Your task to perform on an android device: change text size in settings app Image 0: 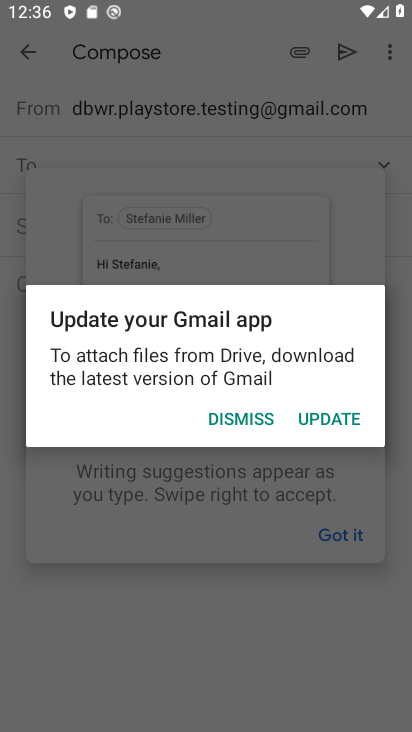
Step 0: press back button
Your task to perform on an android device: change text size in settings app Image 1: 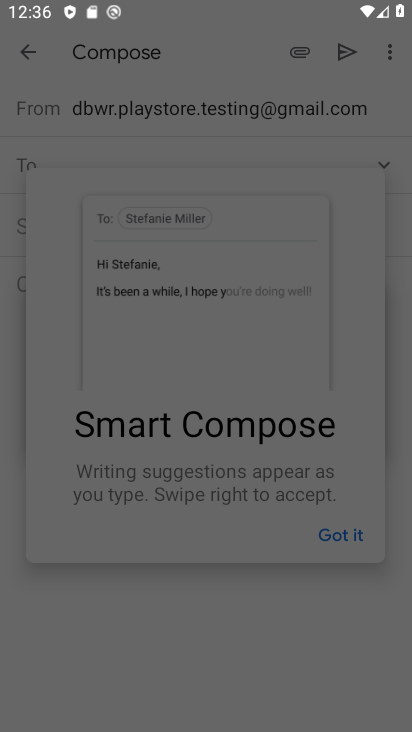
Step 1: press home button
Your task to perform on an android device: change text size in settings app Image 2: 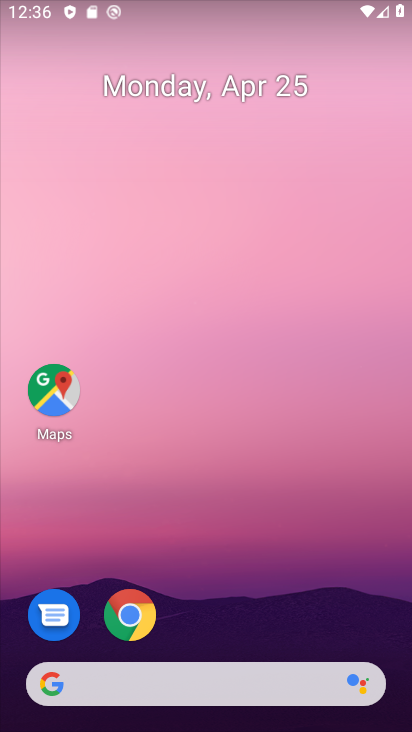
Step 2: drag from (200, 584) to (341, 122)
Your task to perform on an android device: change text size in settings app Image 3: 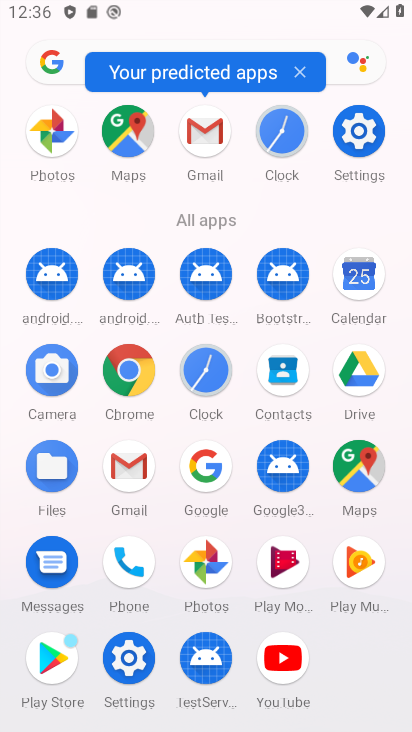
Step 3: click (132, 670)
Your task to perform on an android device: change text size in settings app Image 4: 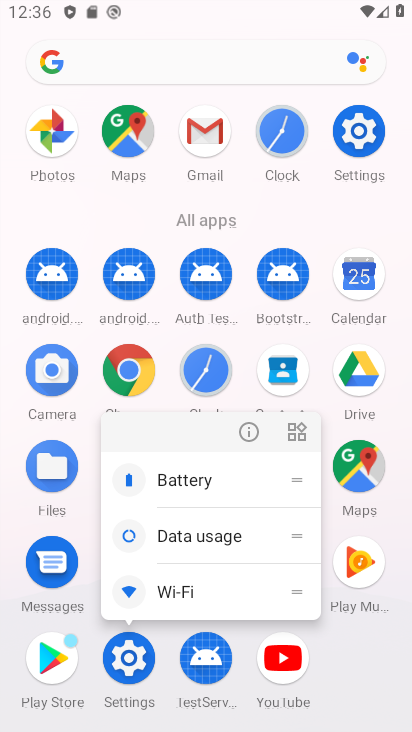
Step 4: click (133, 659)
Your task to perform on an android device: change text size in settings app Image 5: 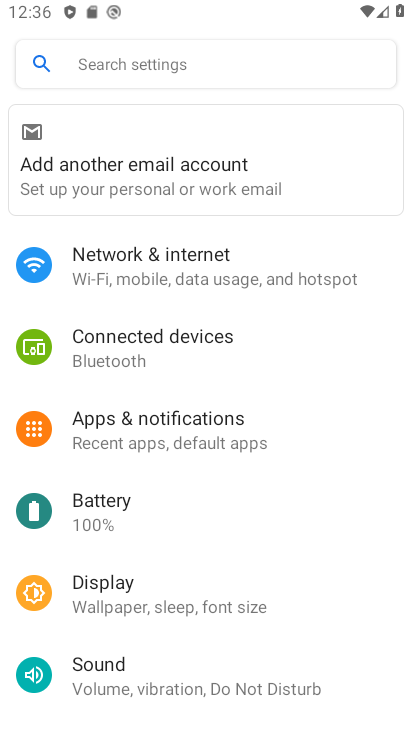
Step 5: click (172, 608)
Your task to perform on an android device: change text size in settings app Image 6: 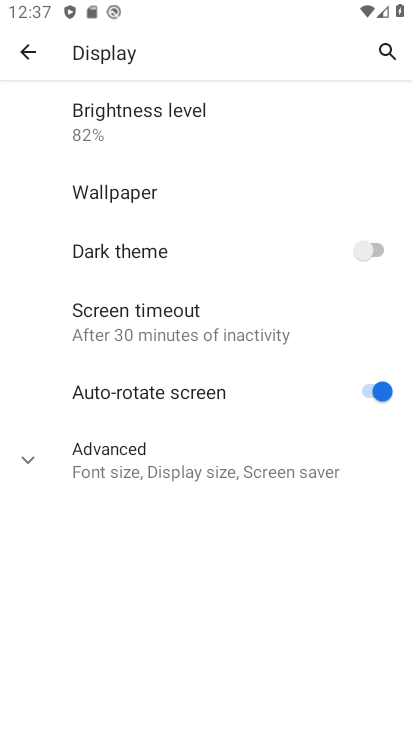
Step 6: click (156, 455)
Your task to perform on an android device: change text size in settings app Image 7: 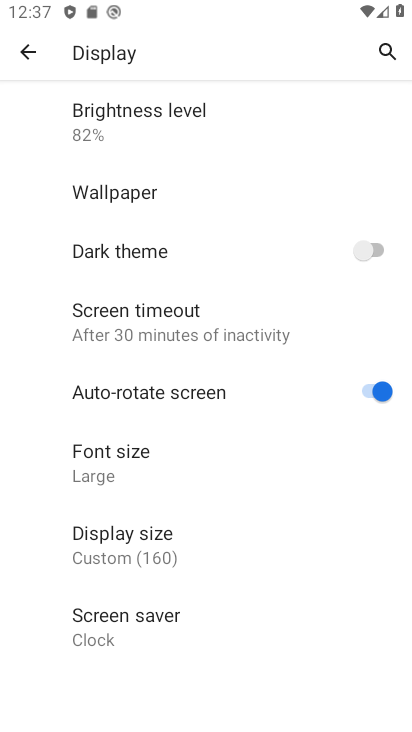
Step 7: click (158, 471)
Your task to perform on an android device: change text size in settings app Image 8: 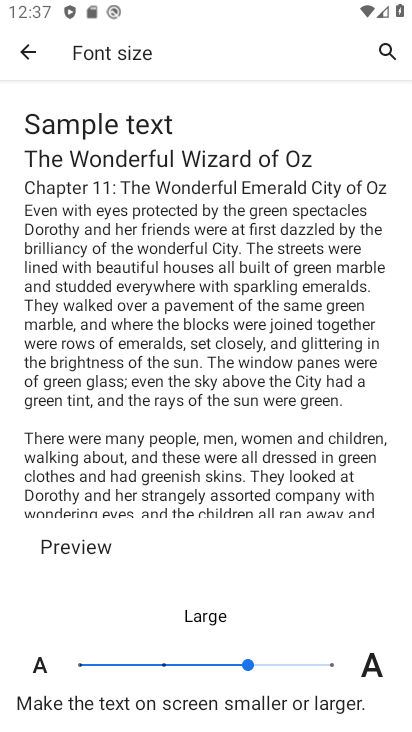
Step 8: click (164, 664)
Your task to perform on an android device: change text size in settings app Image 9: 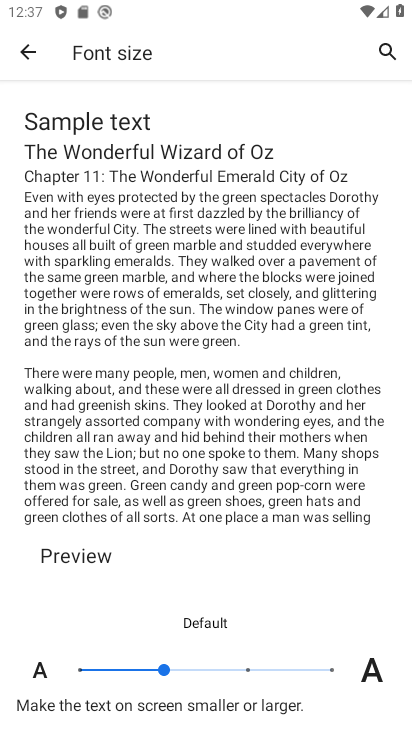
Step 9: task complete